Your task to perform on an android device: Open Android settings Image 0: 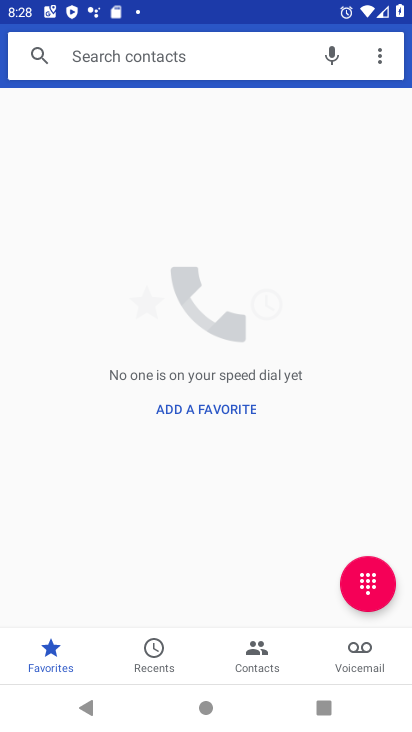
Step 0: press back button
Your task to perform on an android device: Open Android settings Image 1: 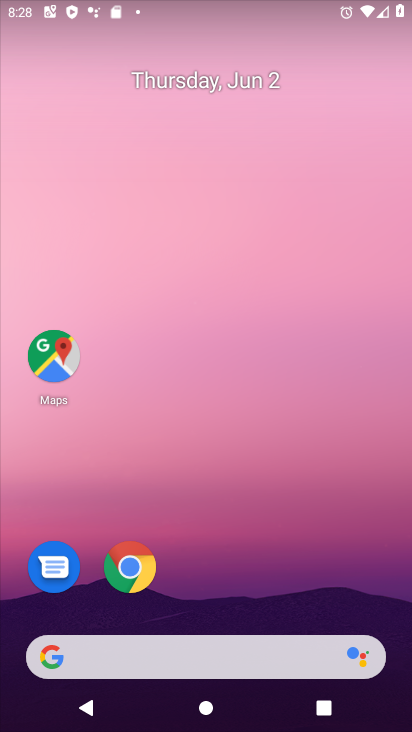
Step 1: drag from (245, 573) to (170, 145)
Your task to perform on an android device: Open Android settings Image 2: 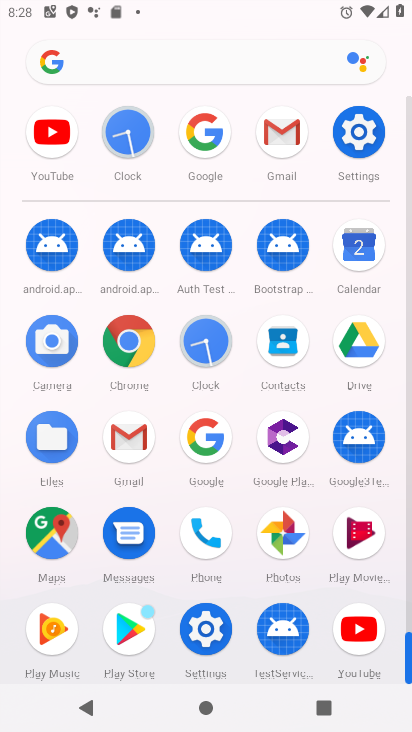
Step 2: click (359, 133)
Your task to perform on an android device: Open Android settings Image 3: 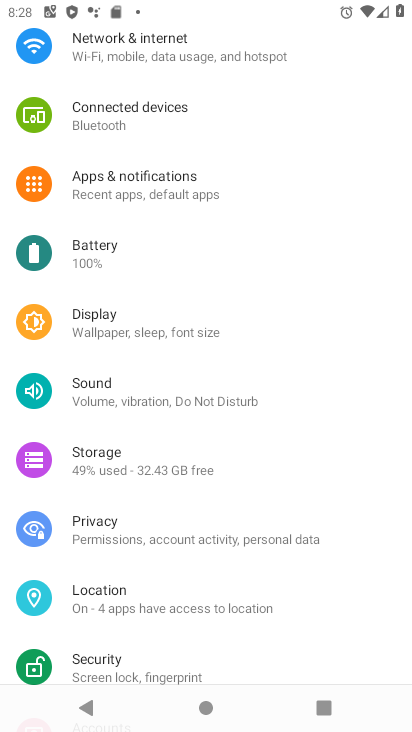
Step 3: task complete